Your task to perform on an android device: Open the calendar app, open the side menu, and click the "Day" option Image 0: 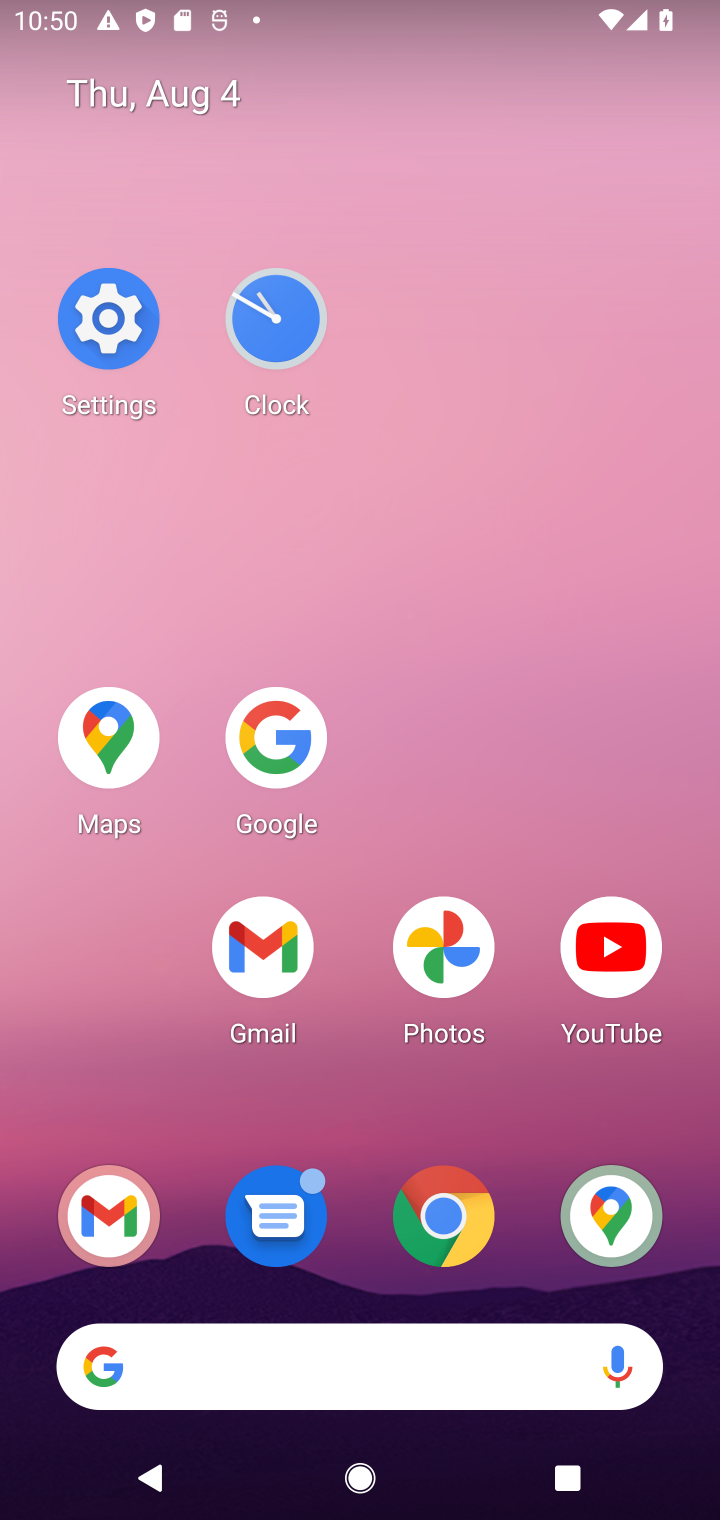
Step 0: drag from (122, 1017) to (186, 423)
Your task to perform on an android device: Open the calendar app, open the side menu, and click the "Day" option Image 1: 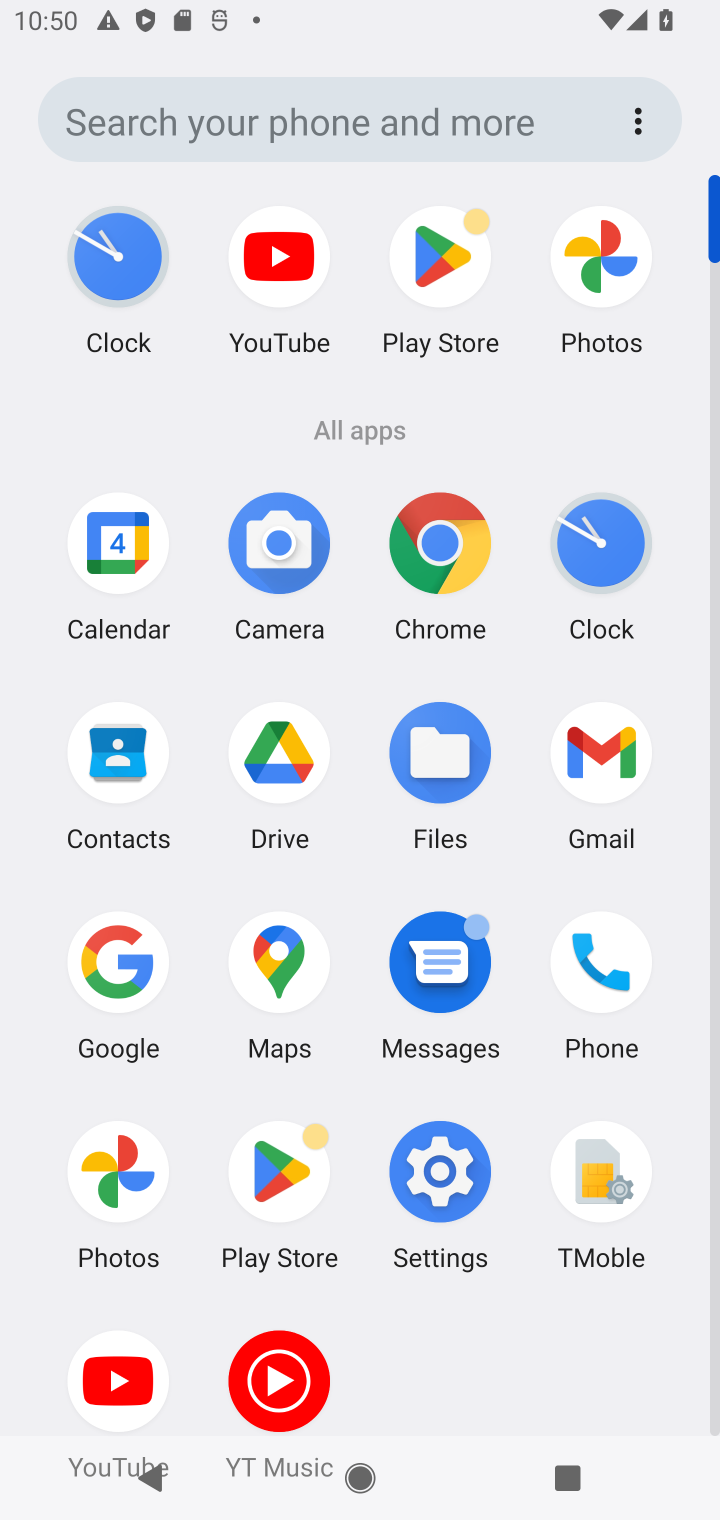
Step 1: drag from (138, 525) to (455, 430)
Your task to perform on an android device: Open the calendar app, open the side menu, and click the "Day" option Image 2: 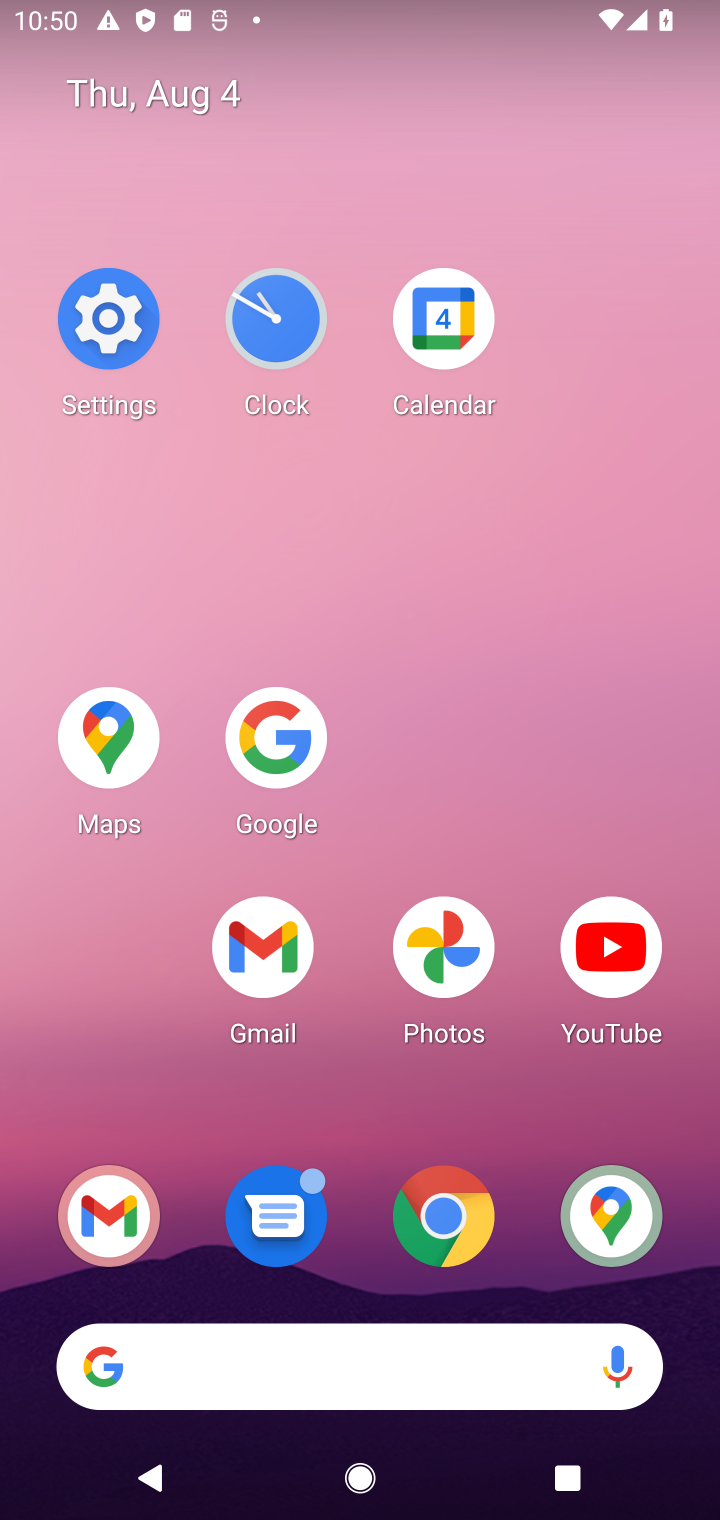
Step 2: click (439, 341)
Your task to perform on an android device: Open the calendar app, open the side menu, and click the "Day" option Image 3: 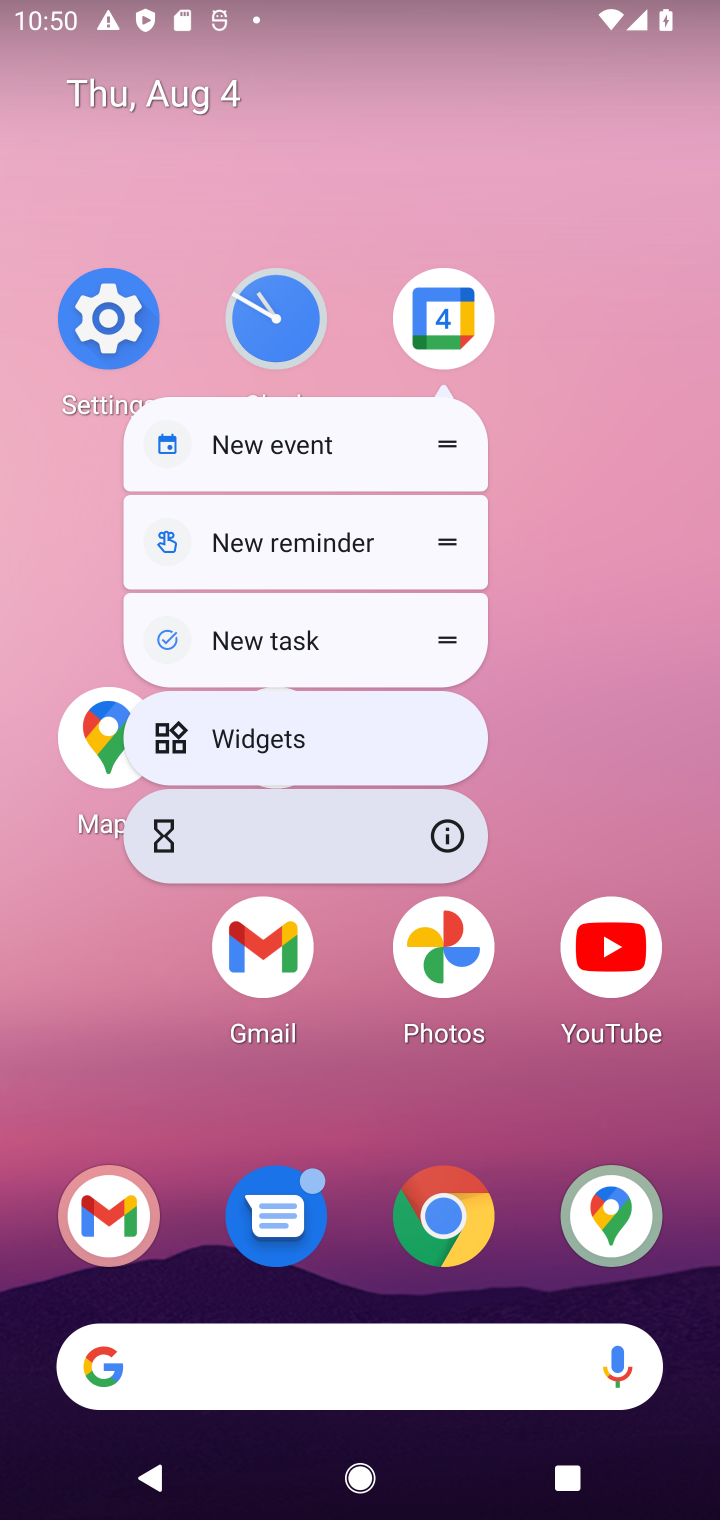
Step 3: click (439, 341)
Your task to perform on an android device: Open the calendar app, open the side menu, and click the "Day" option Image 4: 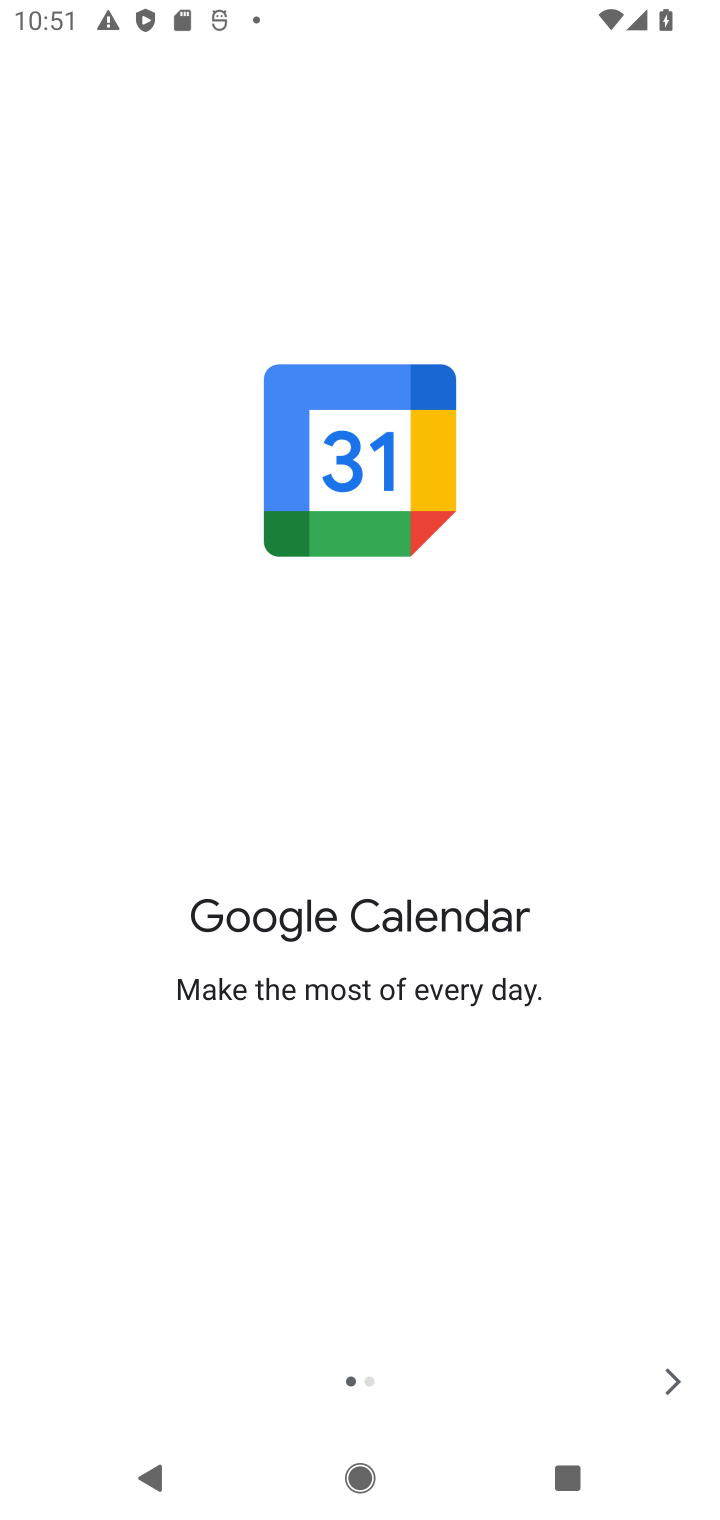
Step 4: click (682, 1395)
Your task to perform on an android device: Open the calendar app, open the side menu, and click the "Day" option Image 5: 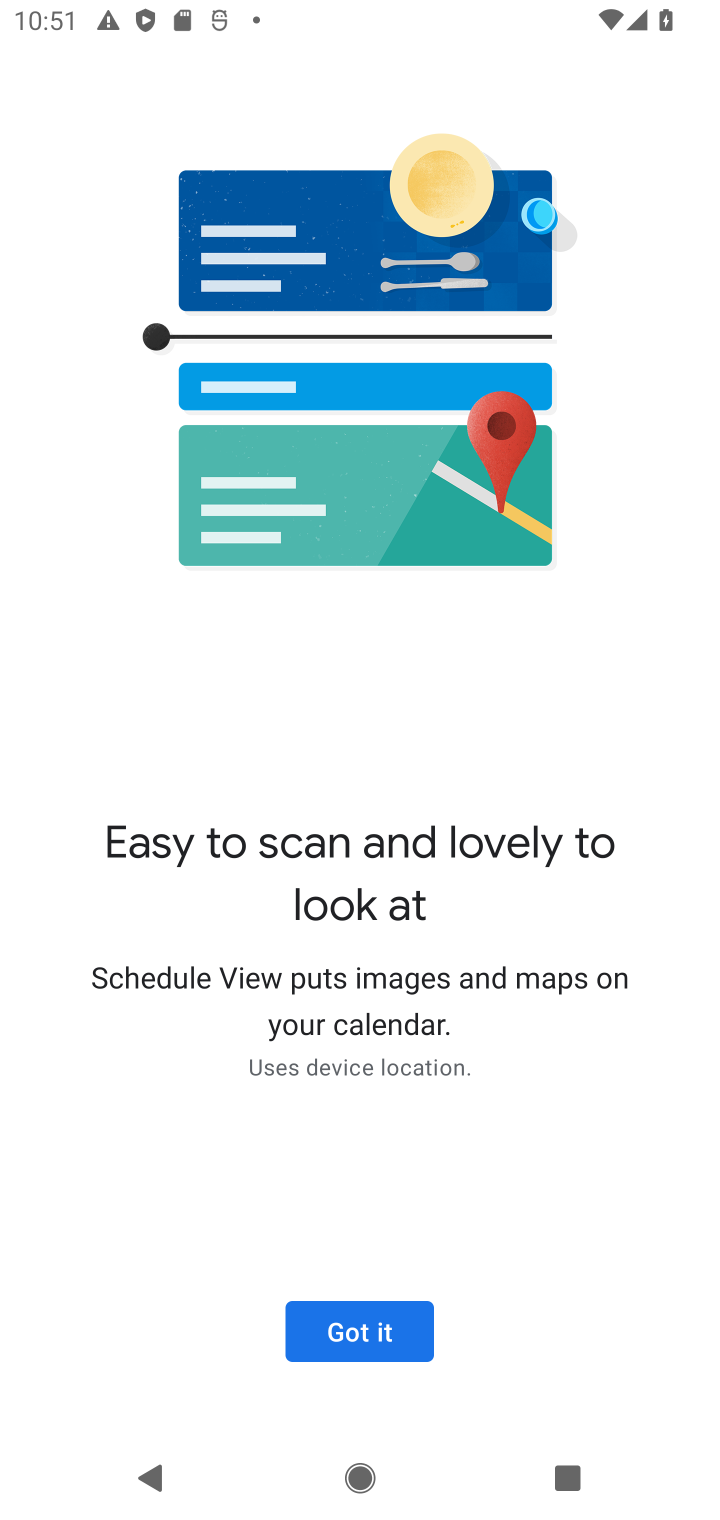
Step 5: click (322, 1318)
Your task to perform on an android device: Open the calendar app, open the side menu, and click the "Day" option Image 6: 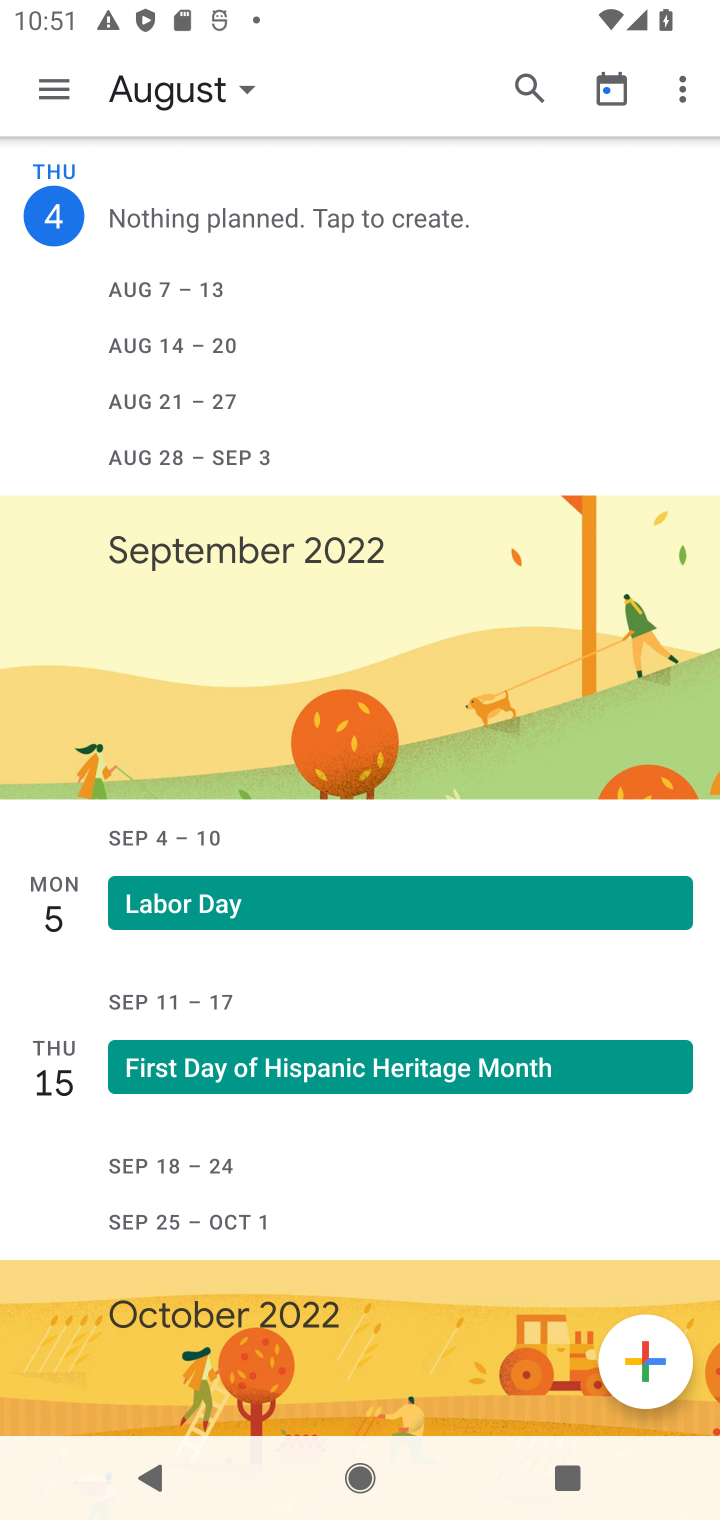
Step 6: click (25, 99)
Your task to perform on an android device: Open the calendar app, open the side menu, and click the "Day" option Image 7: 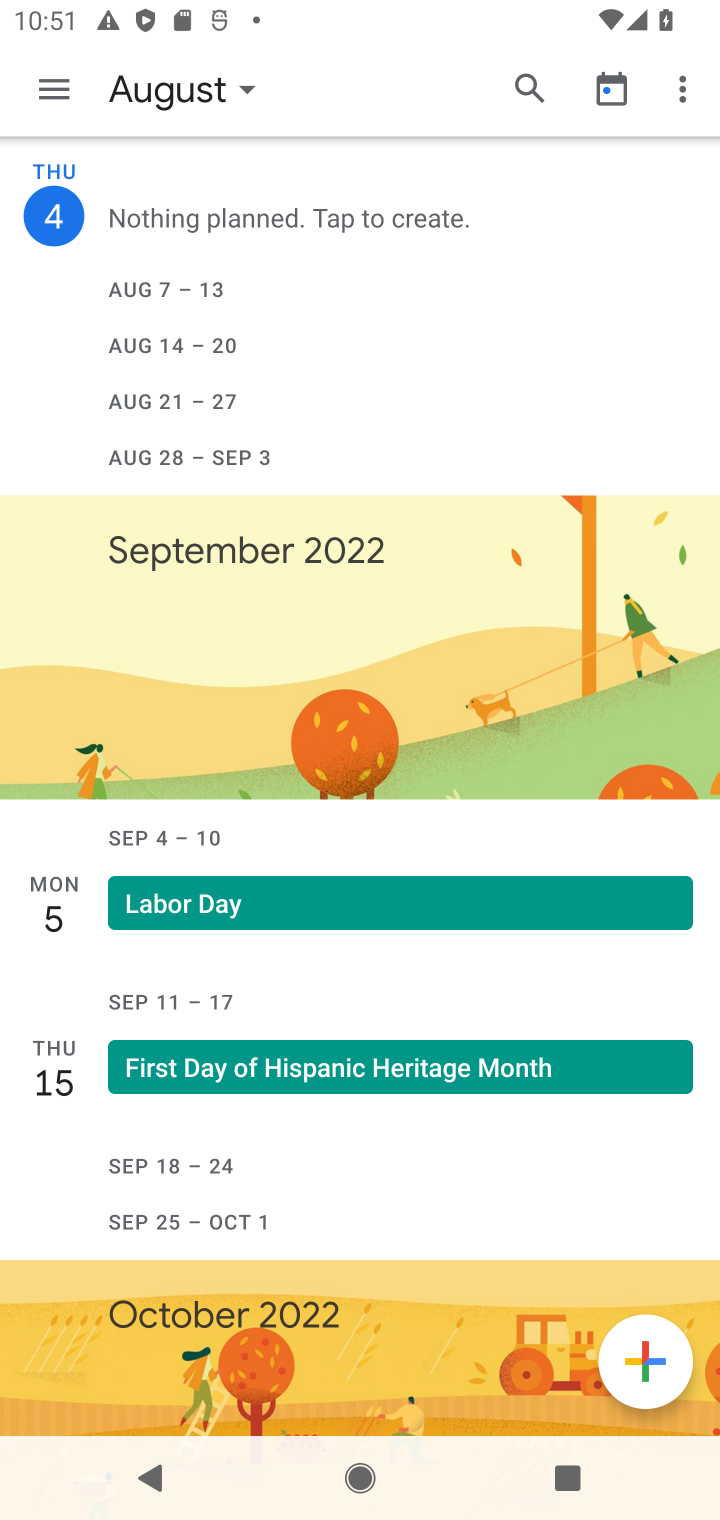
Step 7: click (64, 88)
Your task to perform on an android device: Open the calendar app, open the side menu, and click the "Day" option Image 8: 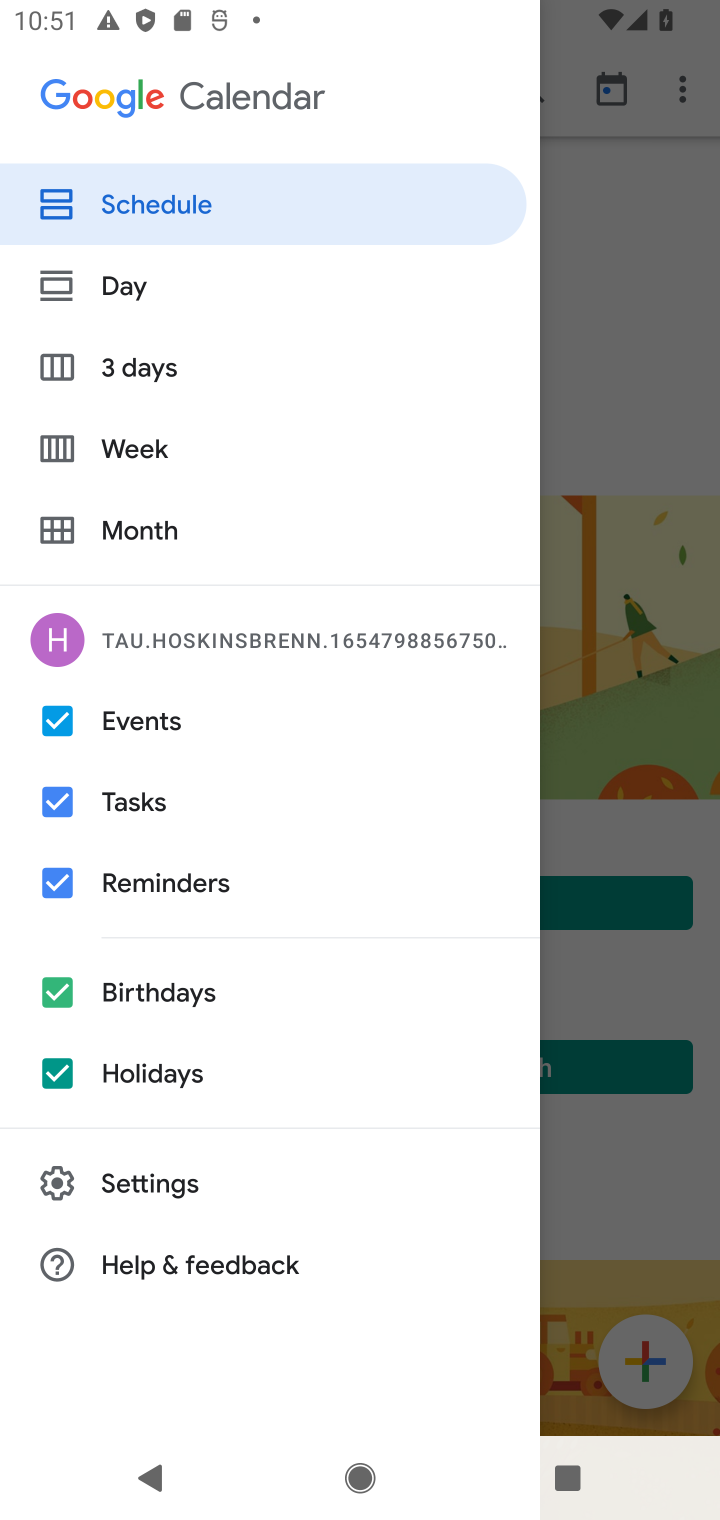
Step 8: click (181, 278)
Your task to perform on an android device: Open the calendar app, open the side menu, and click the "Day" option Image 9: 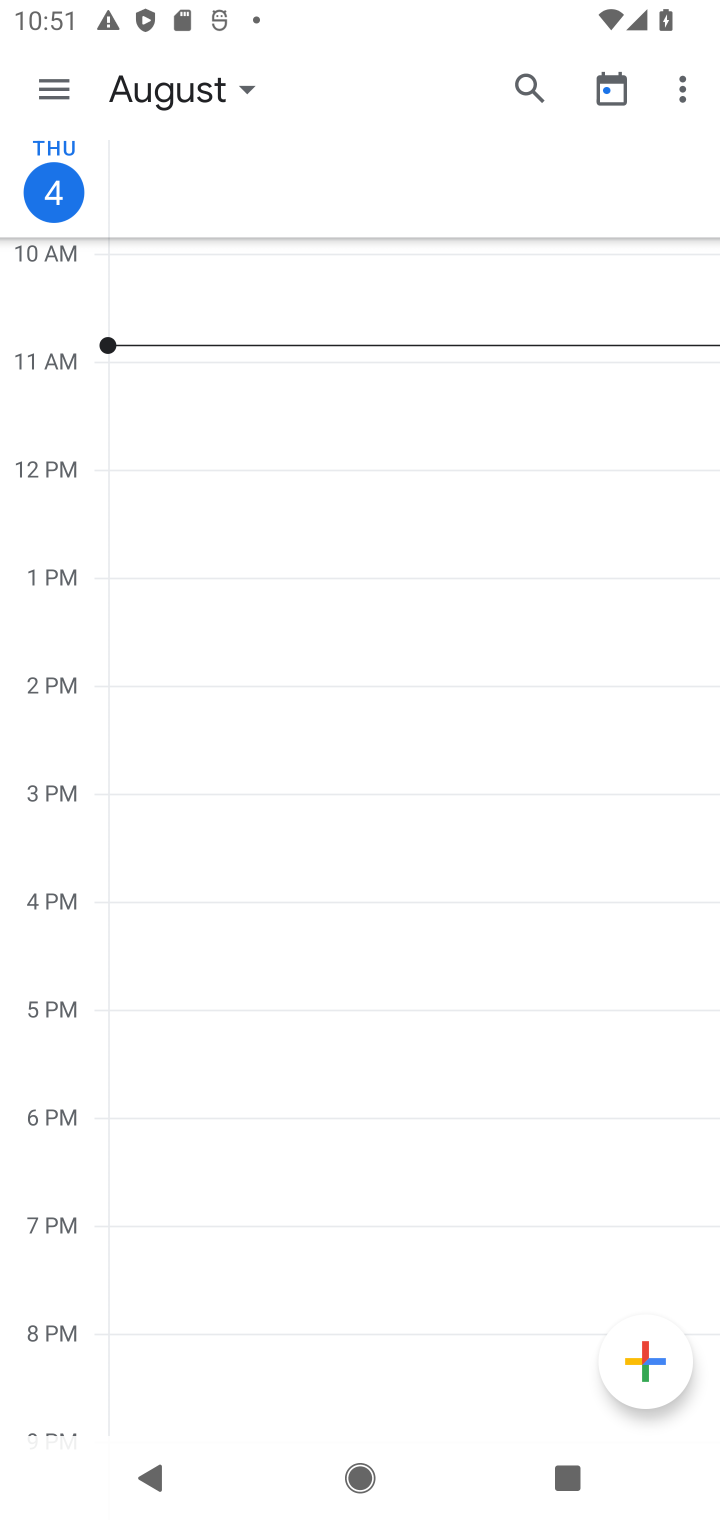
Step 9: task complete